Your task to perform on an android device: change text size in settings app Image 0: 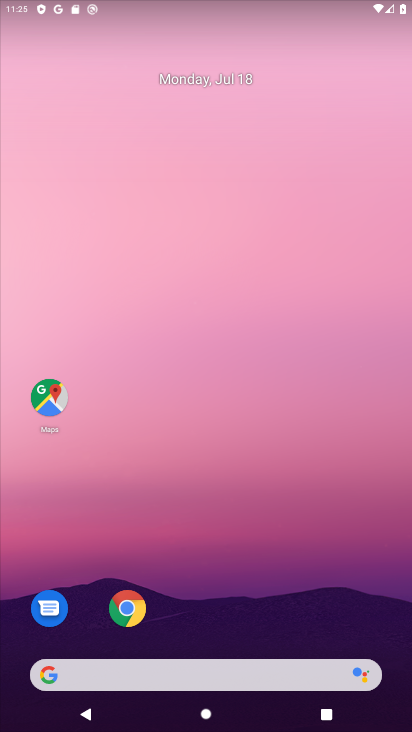
Step 0: drag from (253, 617) to (257, 296)
Your task to perform on an android device: change text size in settings app Image 1: 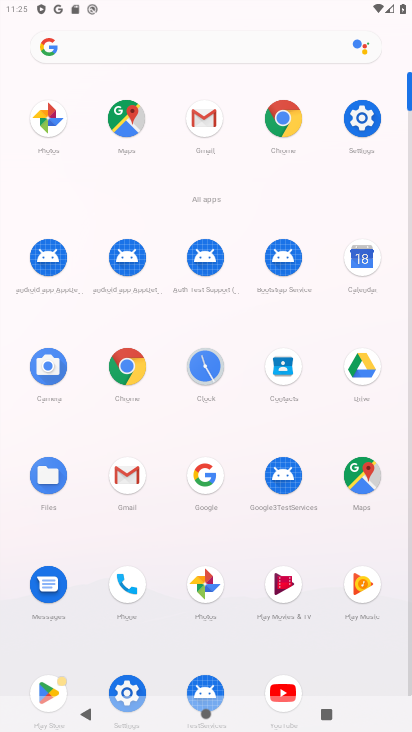
Step 1: click (377, 93)
Your task to perform on an android device: change text size in settings app Image 2: 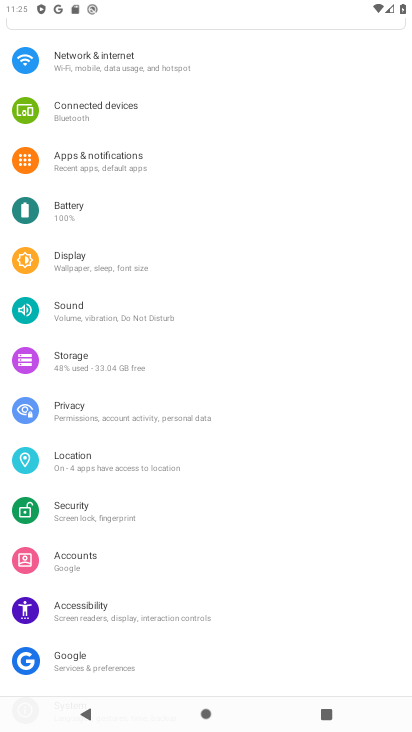
Step 2: click (150, 254)
Your task to perform on an android device: change text size in settings app Image 3: 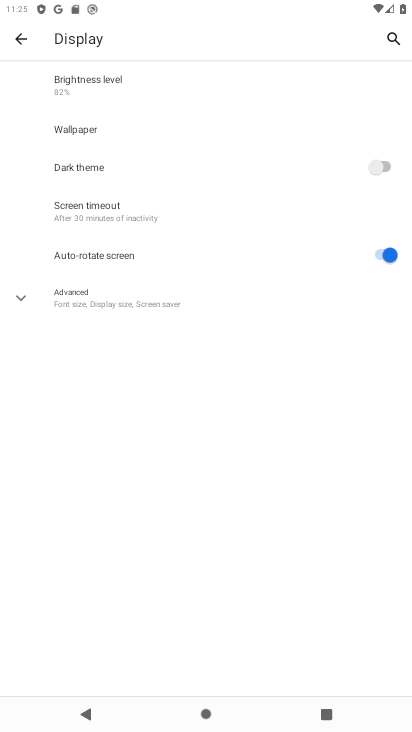
Step 3: click (114, 303)
Your task to perform on an android device: change text size in settings app Image 4: 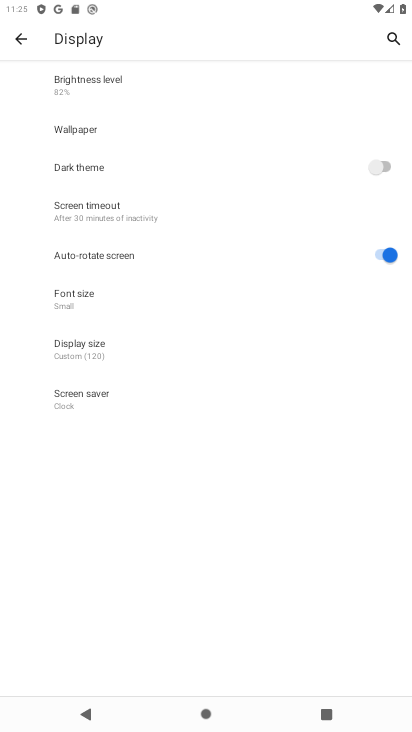
Step 4: click (82, 307)
Your task to perform on an android device: change text size in settings app Image 5: 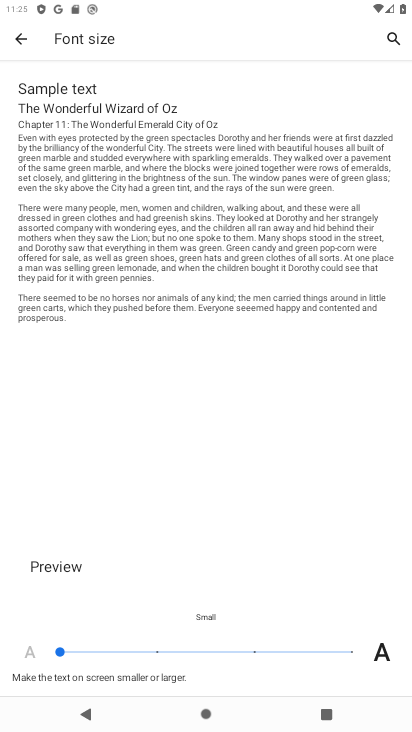
Step 5: click (250, 651)
Your task to perform on an android device: change text size in settings app Image 6: 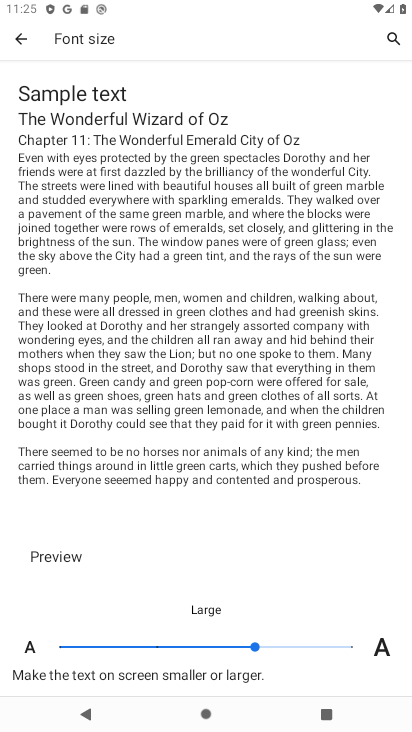
Step 6: task complete